Your task to perform on an android device: see sites visited before in the chrome app Image 0: 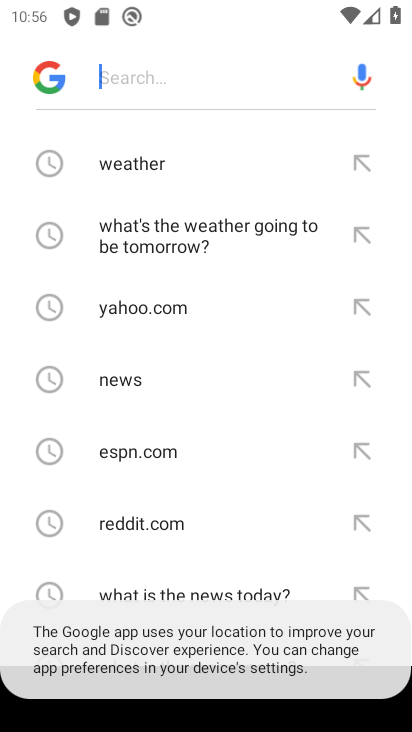
Step 0: press back button
Your task to perform on an android device: see sites visited before in the chrome app Image 1: 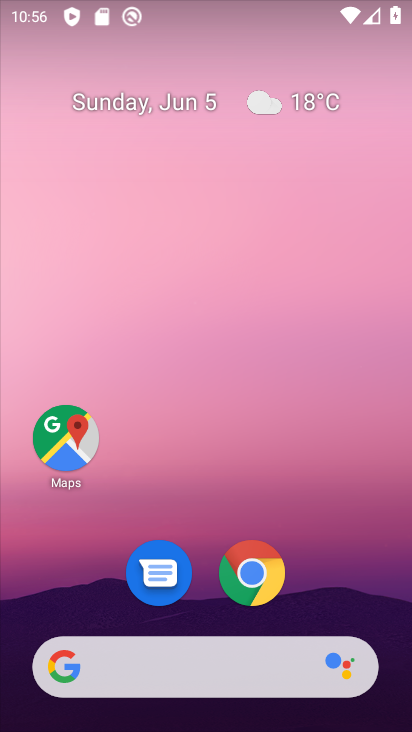
Step 1: click (256, 579)
Your task to perform on an android device: see sites visited before in the chrome app Image 2: 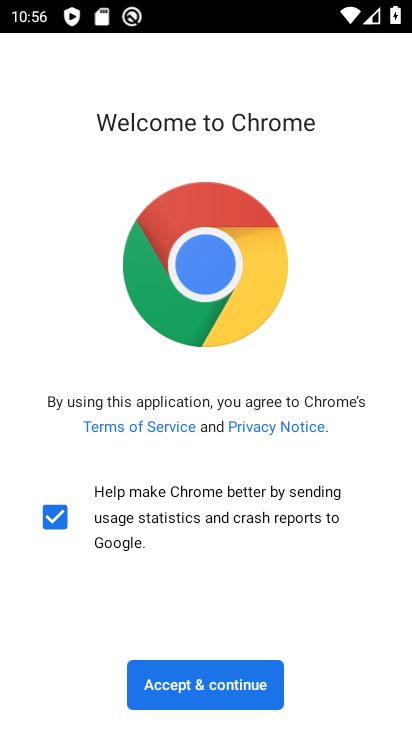
Step 2: click (240, 675)
Your task to perform on an android device: see sites visited before in the chrome app Image 3: 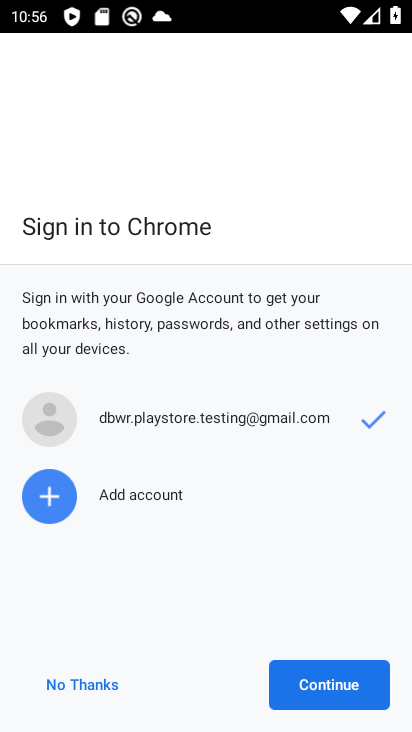
Step 3: click (368, 664)
Your task to perform on an android device: see sites visited before in the chrome app Image 4: 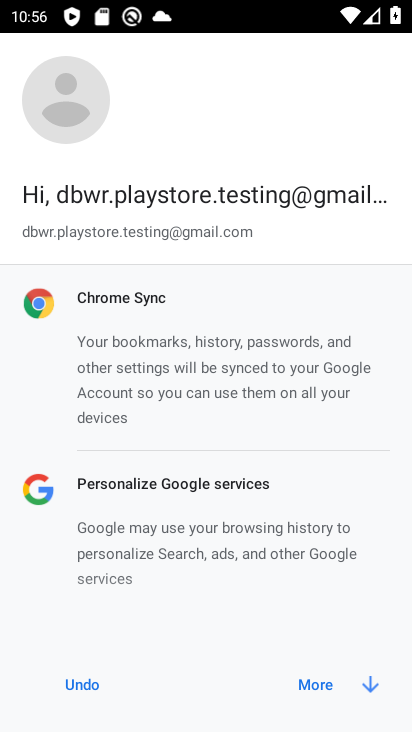
Step 4: click (348, 688)
Your task to perform on an android device: see sites visited before in the chrome app Image 5: 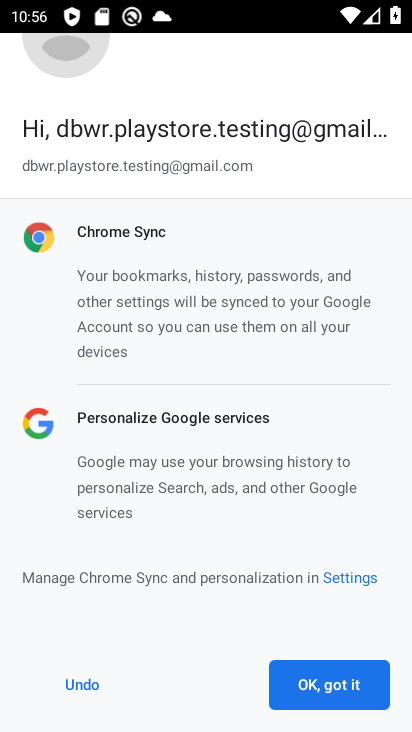
Step 5: click (348, 688)
Your task to perform on an android device: see sites visited before in the chrome app Image 6: 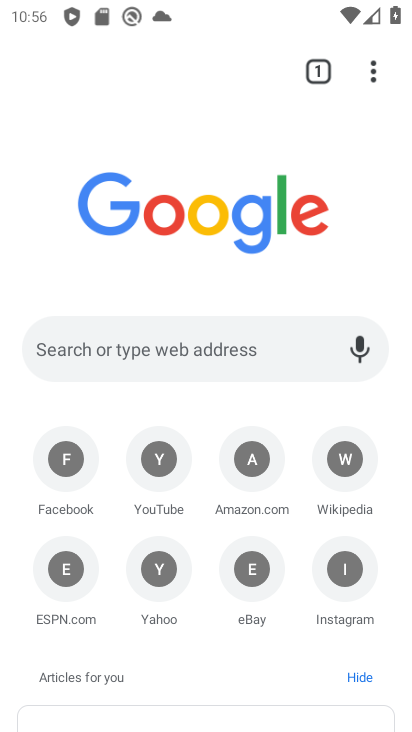
Step 6: click (363, 86)
Your task to perform on an android device: see sites visited before in the chrome app Image 7: 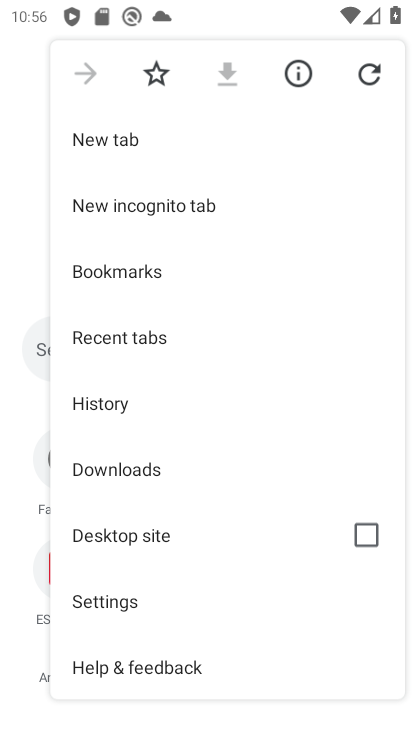
Step 7: click (212, 328)
Your task to perform on an android device: see sites visited before in the chrome app Image 8: 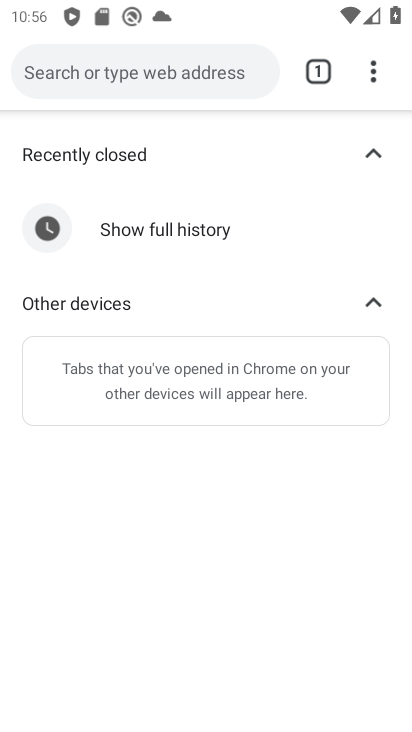
Step 8: click (204, 226)
Your task to perform on an android device: see sites visited before in the chrome app Image 9: 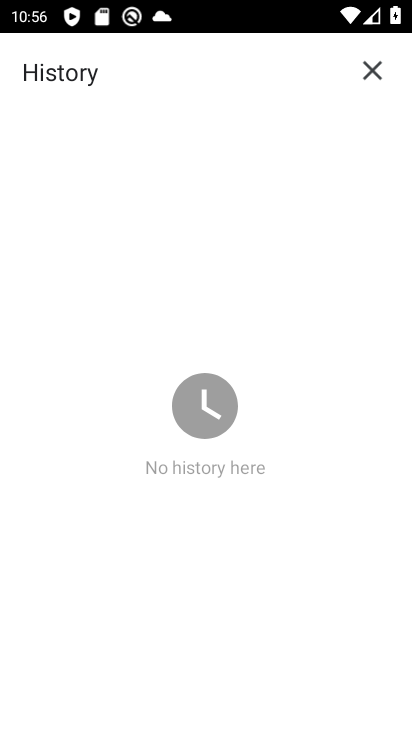
Step 9: task complete